Your task to perform on an android device: Show the shopping cart on walmart.com. Add razer naga to the cart on walmart.com, then select checkout. Image 0: 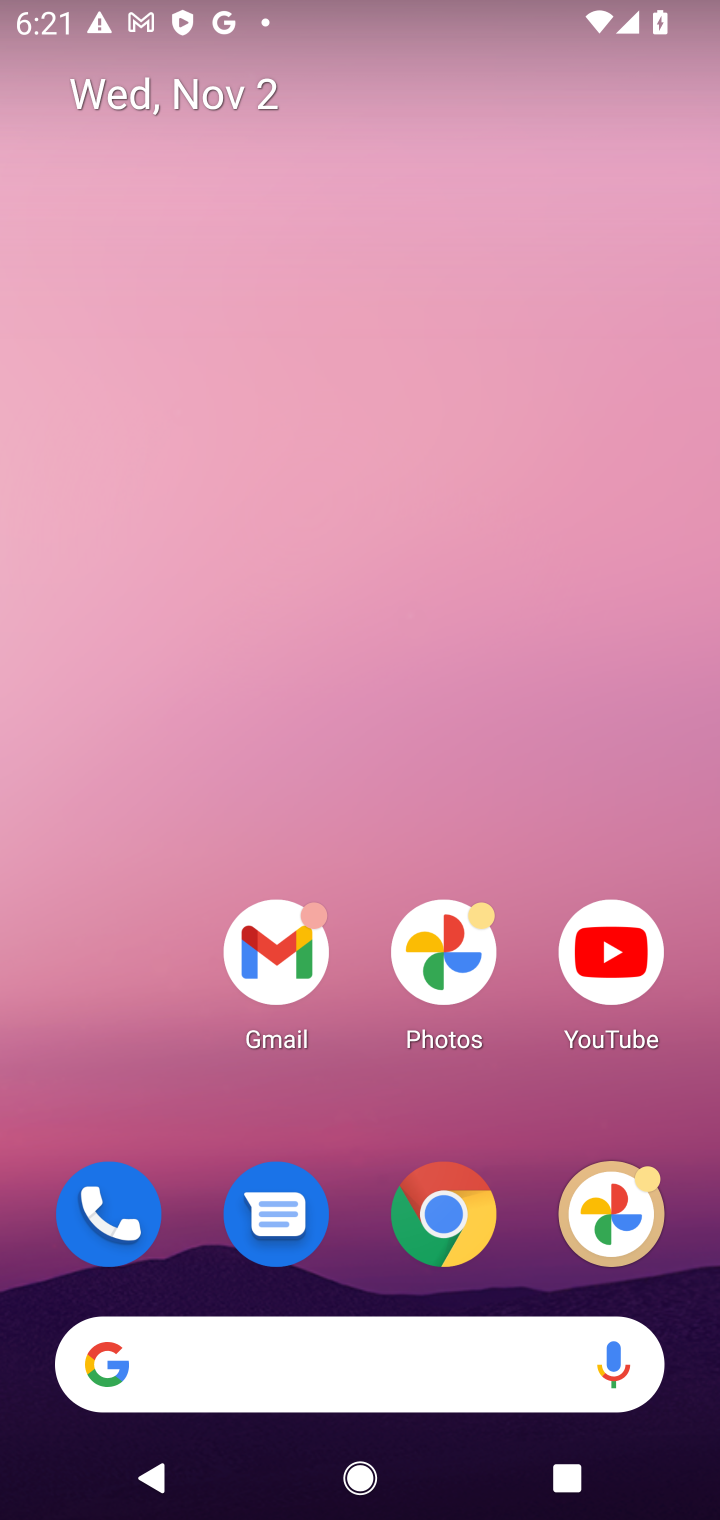
Step 0: click (450, 1218)
Your task to perform on an android device: Show the shopping cart on walmart.com. Add razer naga to the cart on walmart.com, then select checkout. Image 1: 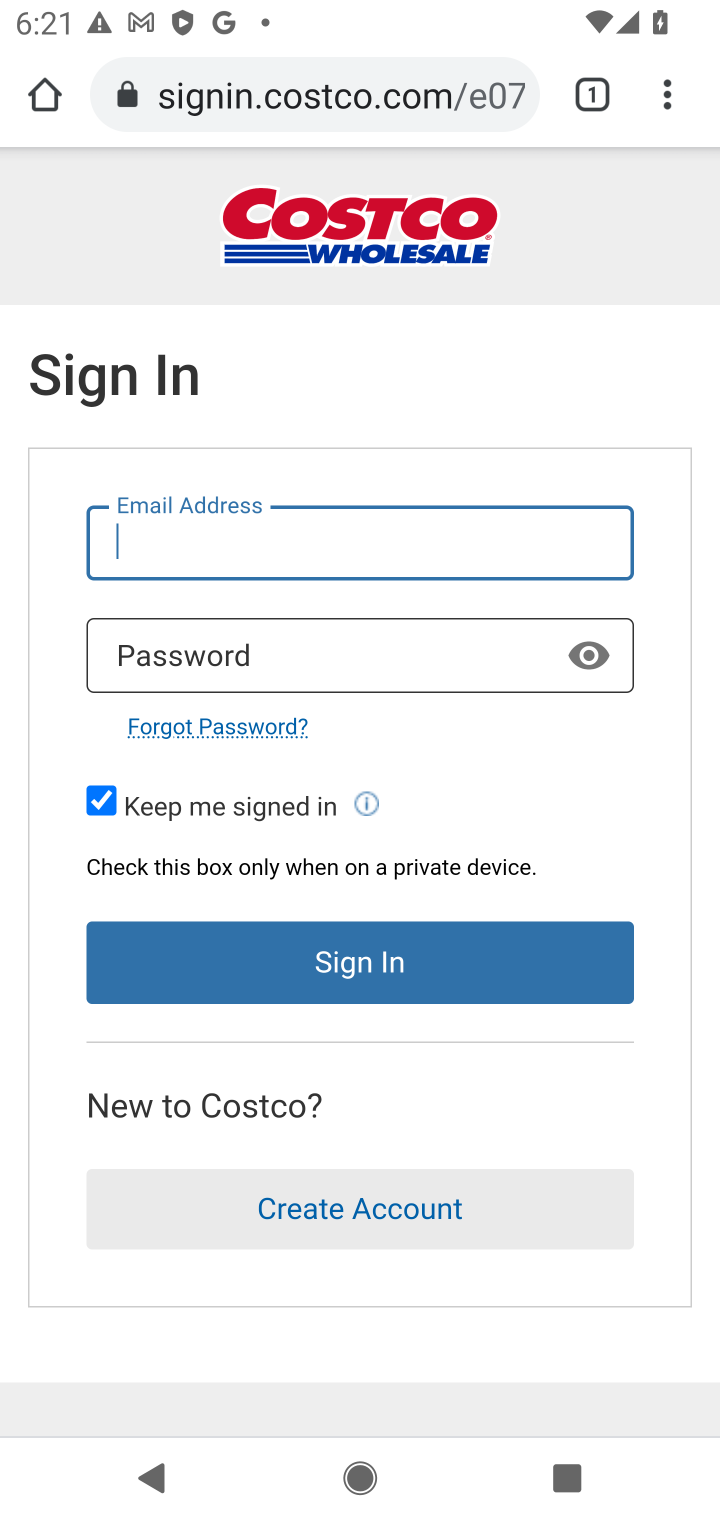
Step 1: click (301, 94)
Your task to perform on an android device: Show the shopping cart on walmart.com. Add razer naga to the cart on walmart.com, then select checkout. Image 2: 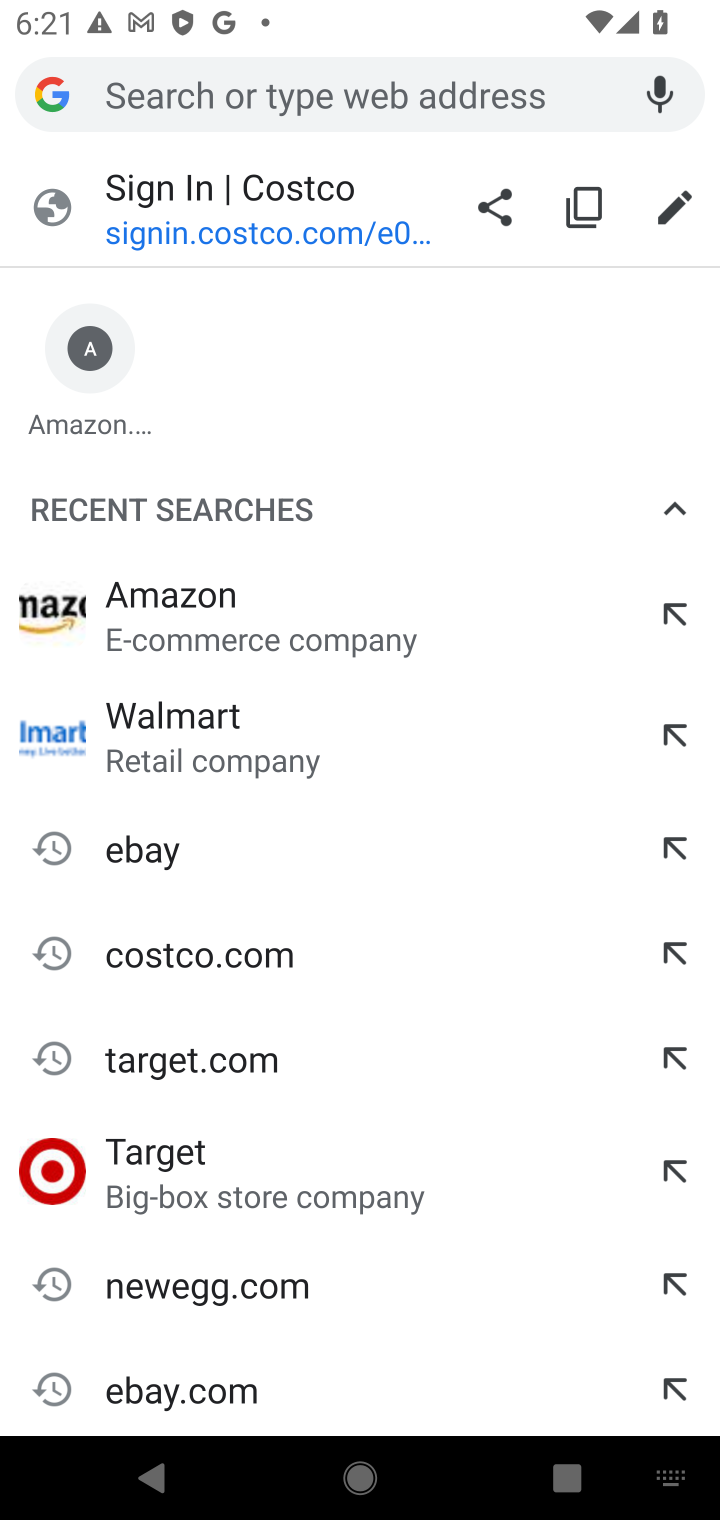
Step 2: type "walmart.com"
Your task to perform on an android device: Show the shopping cart on walmart.com. Add razer naga to the cart on walmart.com, then select checkout. Image 3: 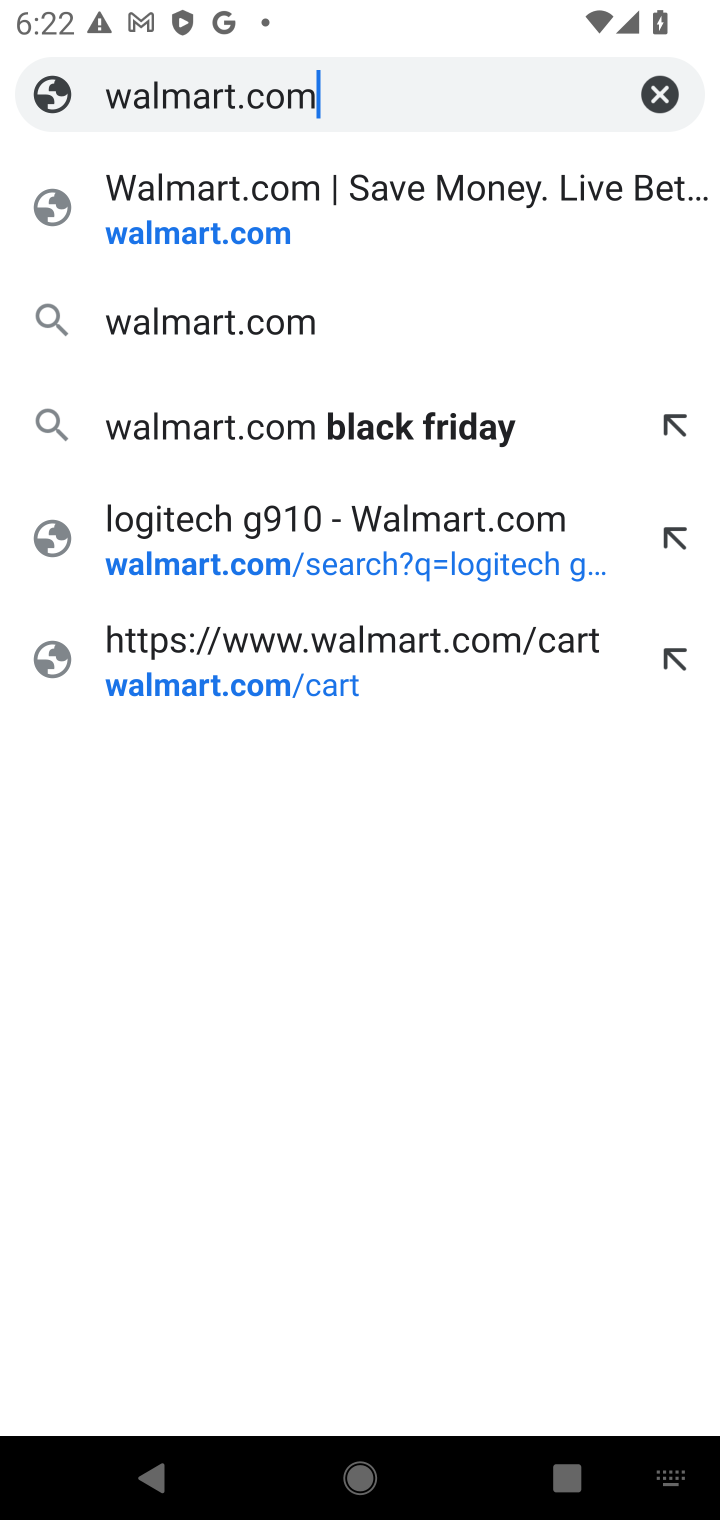
Step 3: click (266, 337)
Your task to perform on an android device: Show the shopping cart on walmart.com. Add razer naga to the cart on walmart.com, then select checkout. Image 4: 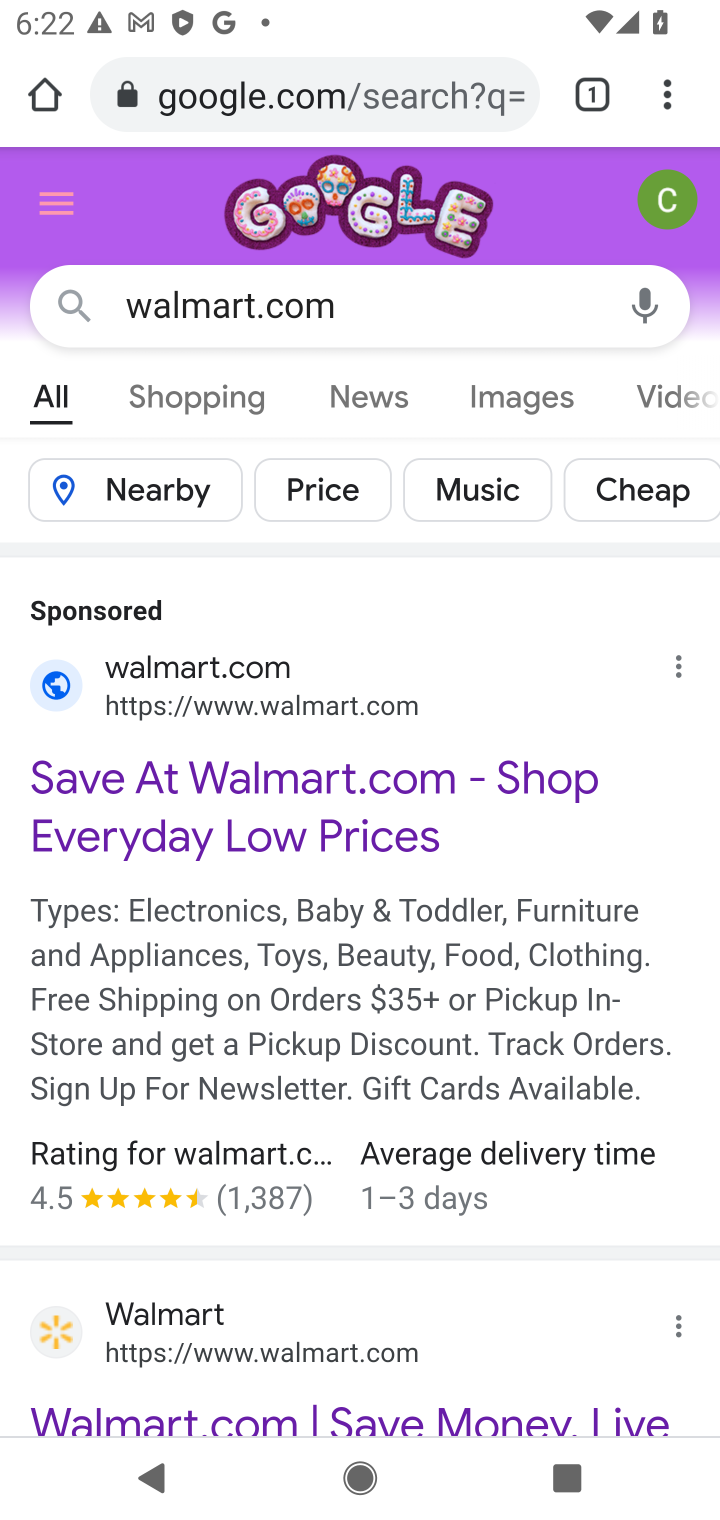
Step 4: drag from (385, 1304) to (436, 621)
Your task to perform on an android device: Show the shopping cart on walmart.com. Add razer naga to the cart on walmart.com, then select checkout. Image 5: 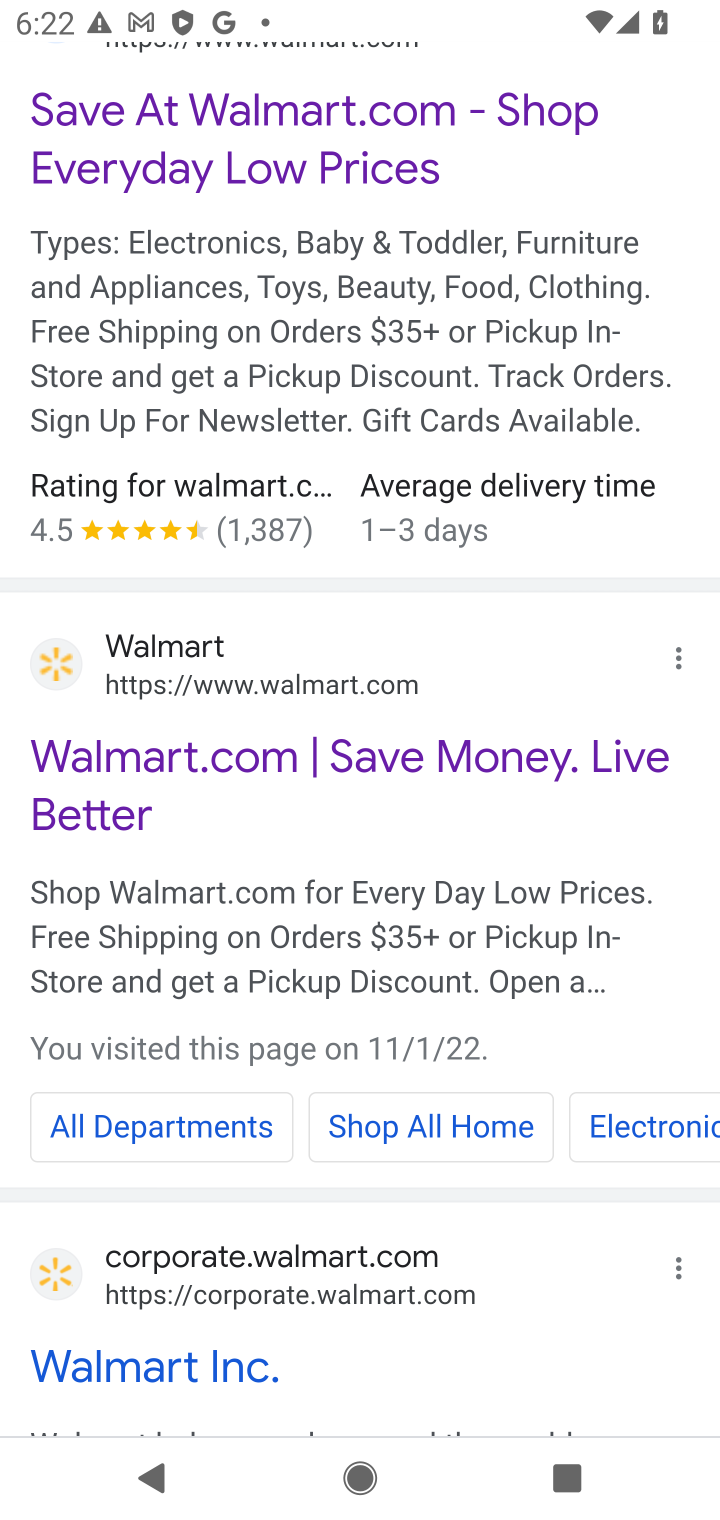
Step 5: click (309, 710)
Your task to perform on an android device: Show the shopping cart on walmart.com. Add razer naga to the cart on walmart.com, then select checkout. Image 6: 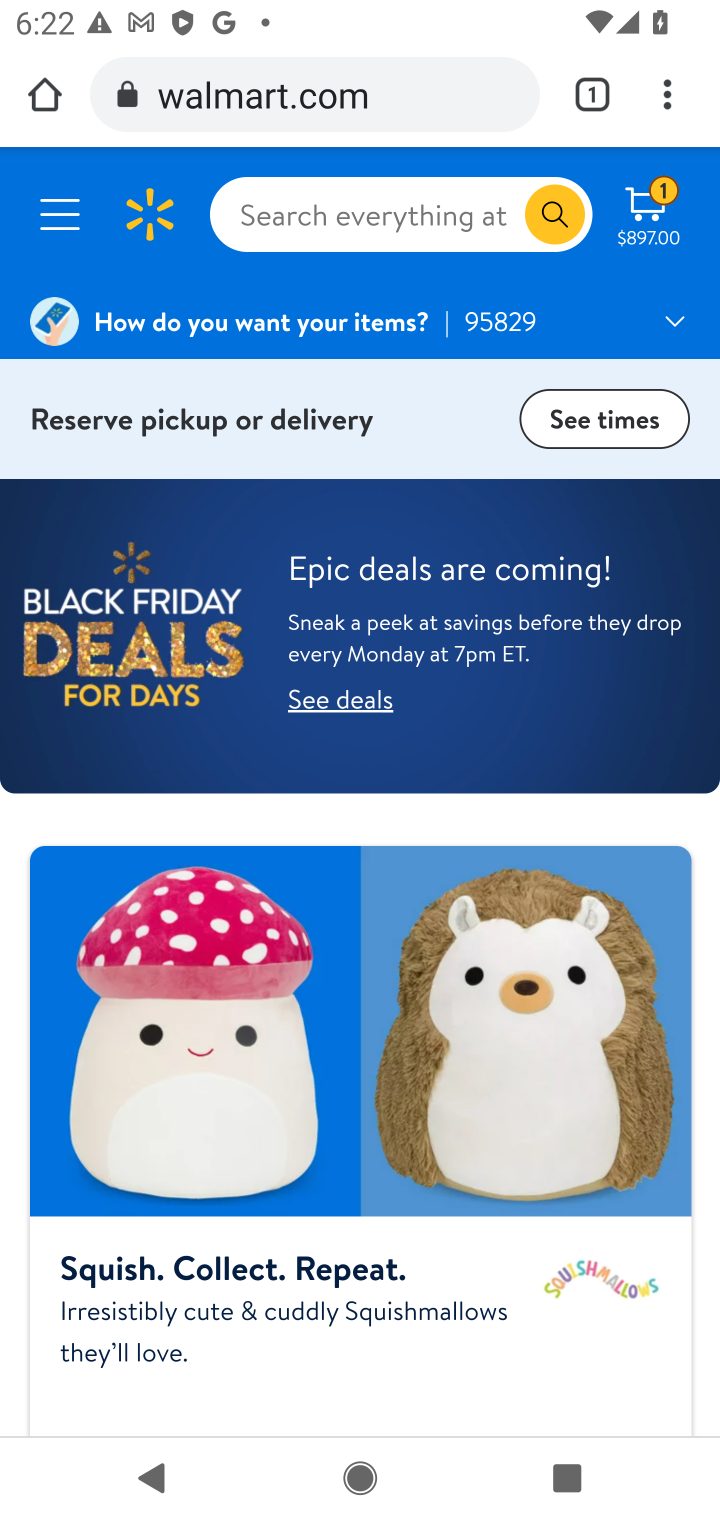
Step 6: click (650, 212)
Your task to perform on an android device: Show the shopping cart on walmart.com. Add razer naga to the cart on walmart.com, then select checkout. Image 7: 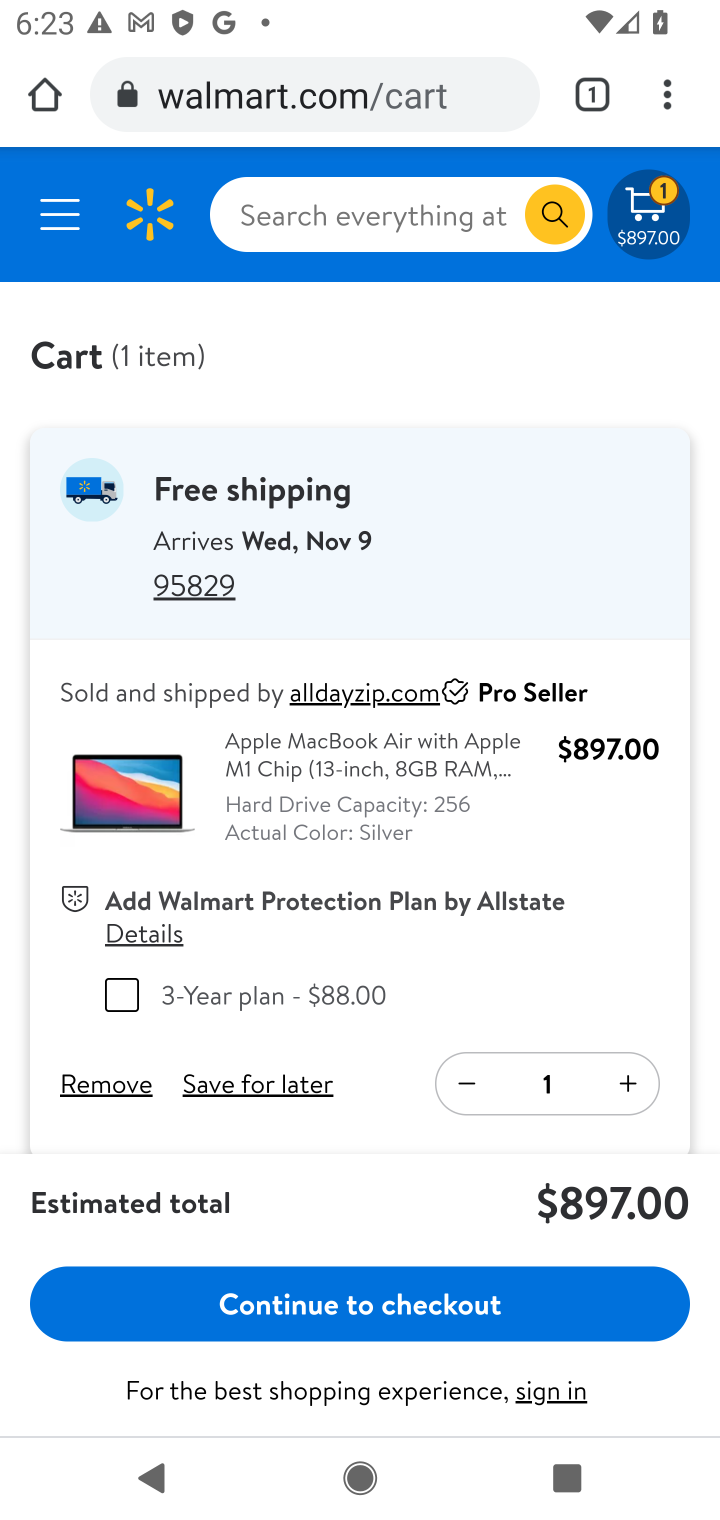
Step 7: click (341, 207)
Your task to perform on an android device: Show the shopping cart on walmart.com. Add razer naga to the cart on walmart.com, then select checkout. Image 8: 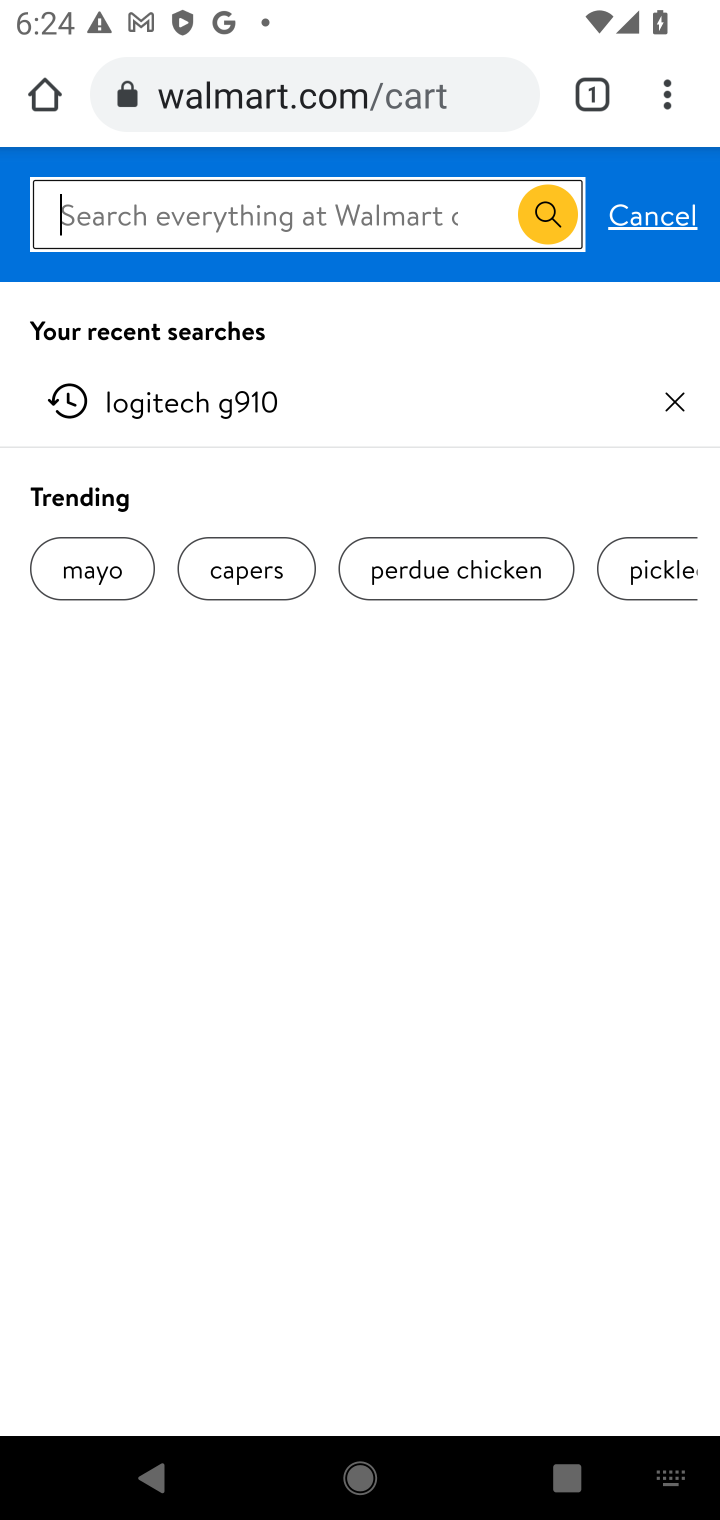
Step 8: type "razer naga"
Your task to perform on an android device: Show the shopping cart on walmart.com. Add razer naga to the cart on walmart.com, then select checkout. Image 9: 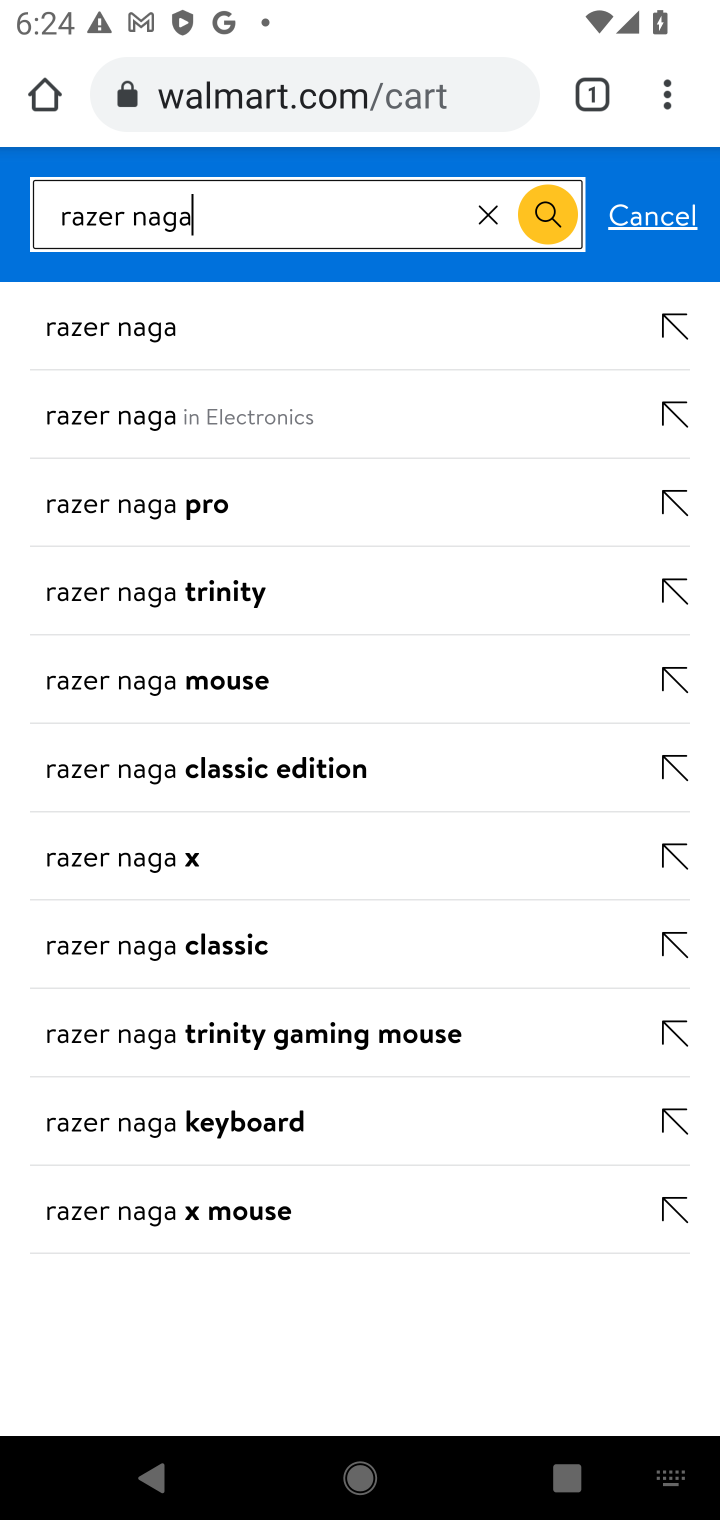
Step 9: click (96, 326)
Your task to perform on an android device: Show the shopping cart on walmart.com. Add razer naga to the cart on walmart.com, then select checkout. Image 10: 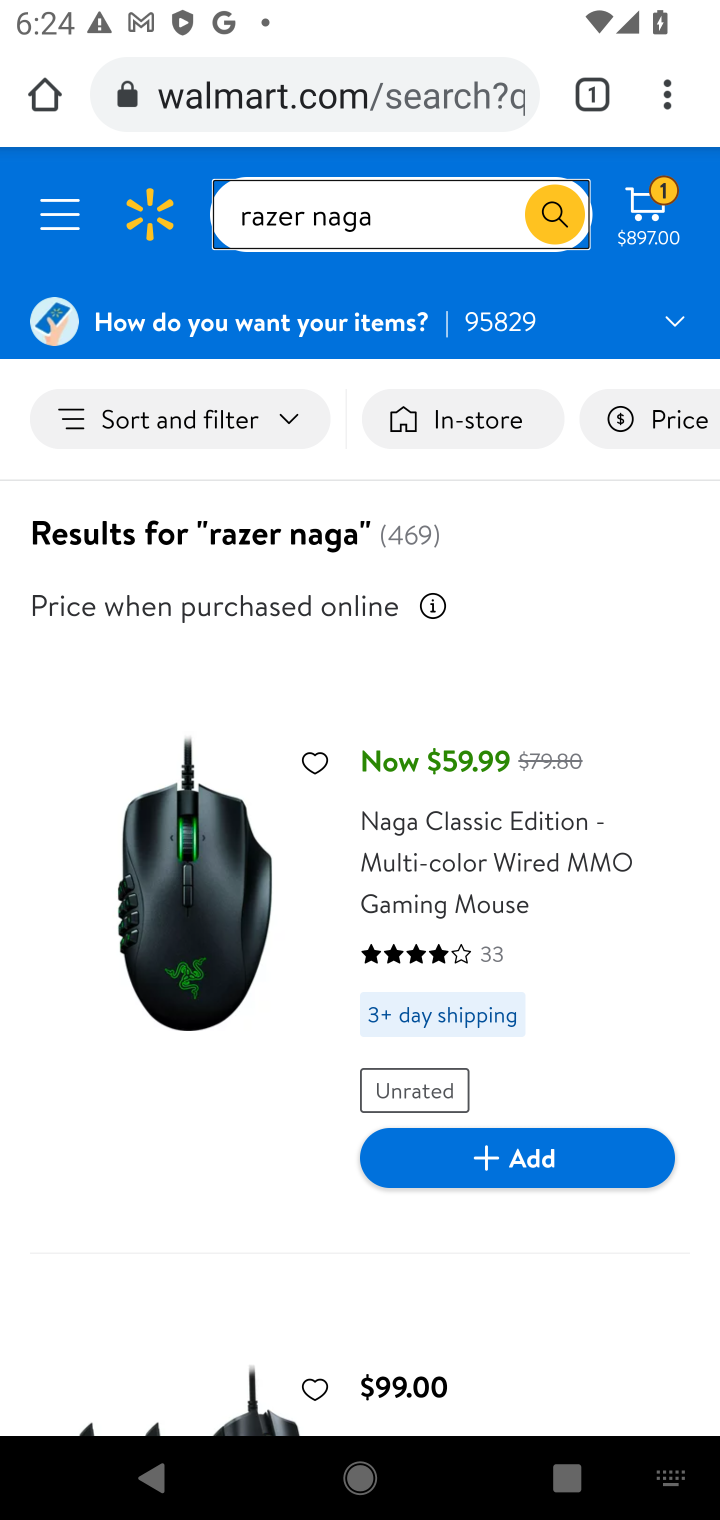
Step 10: click (533, 1160)
Your task to perform on an android device: Show the shopping cart on walmart.com. Add razer naga to the cart on walmart.com, then select checkout. Image 11: 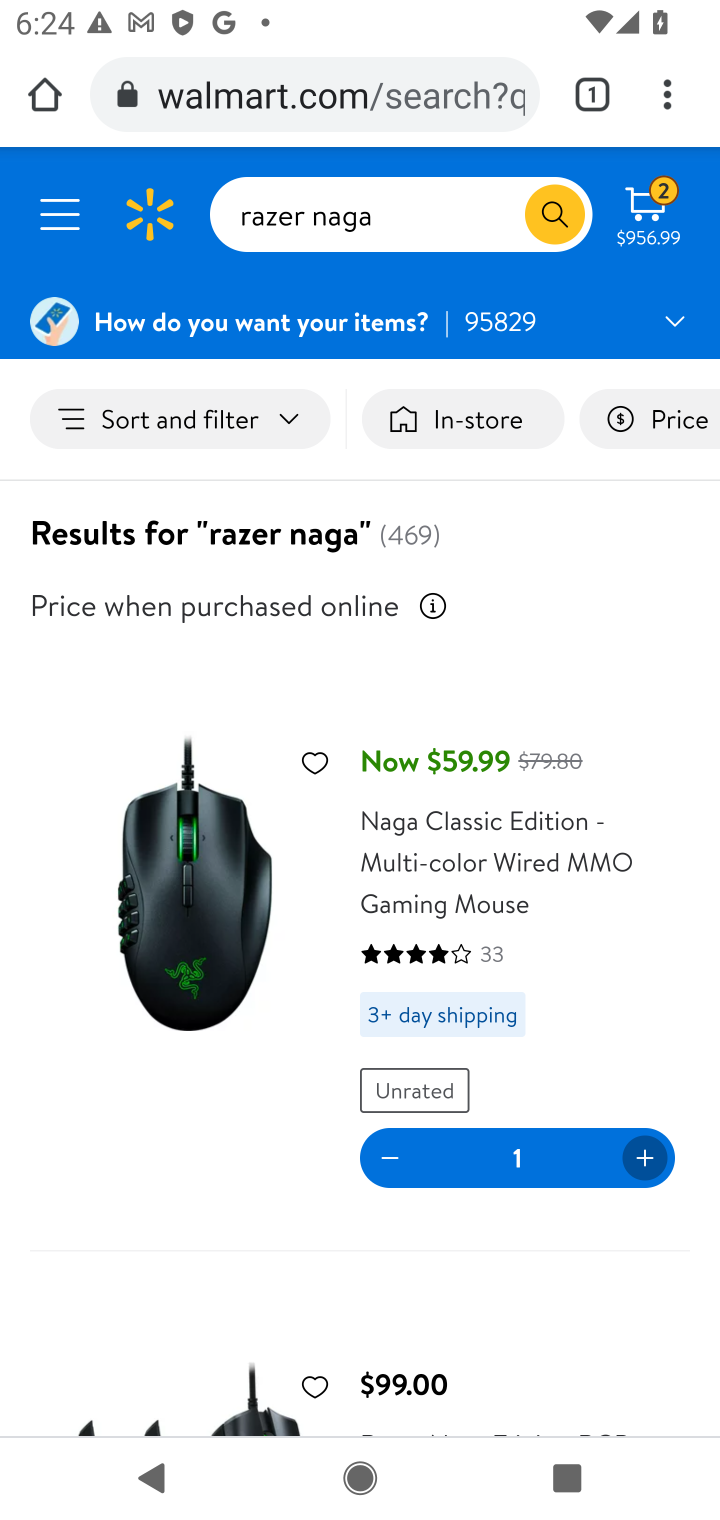
Step 11: click (657, 206)
Your task to perform on an android device: Show the shopping cart on walmart.com. Add razer naga to the cart on walmart.com, then select checkout. Image 12: 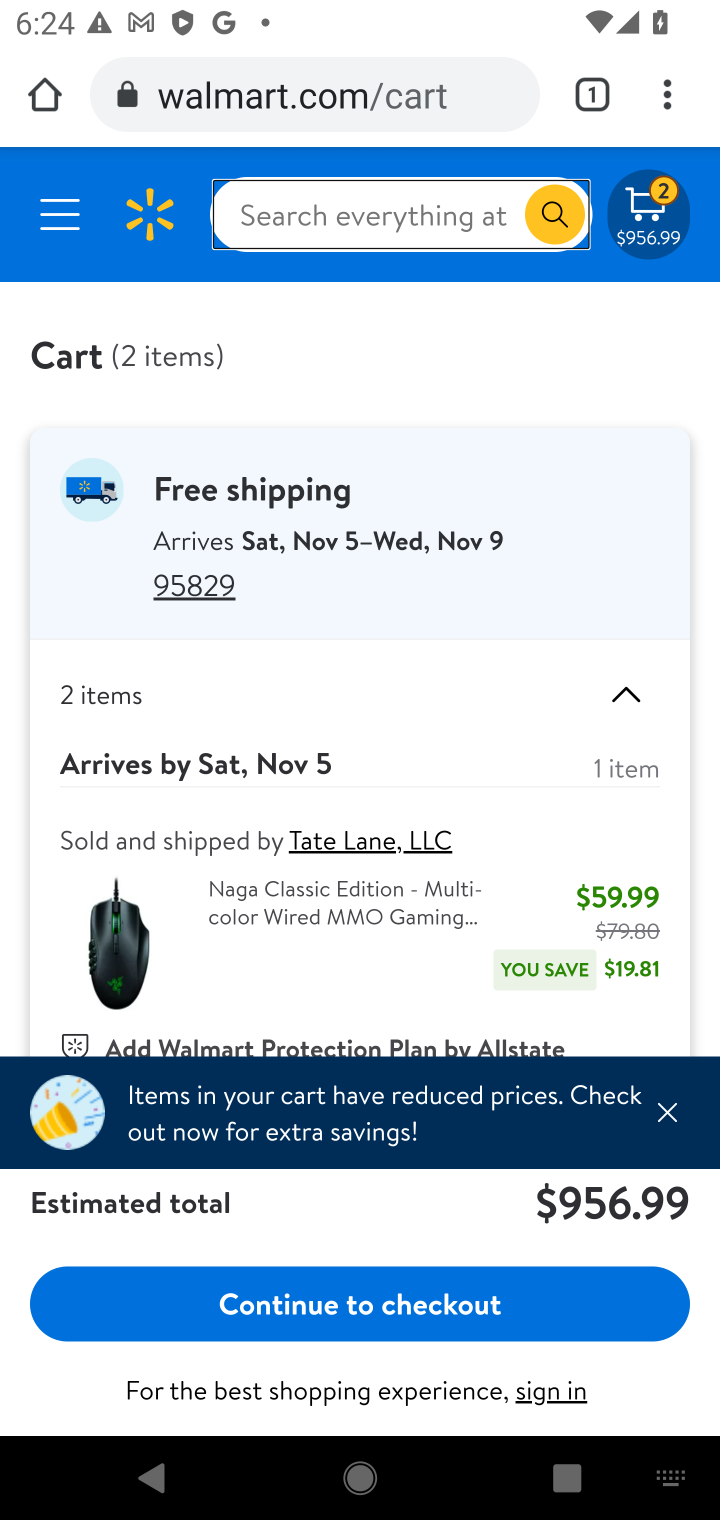
Step 12: click (333, 1305)
Your task to perform on an android device: Show the shopping cart on walmart.com. Add razer naga to the cart on walmart.com, then select checkout. Image 13: 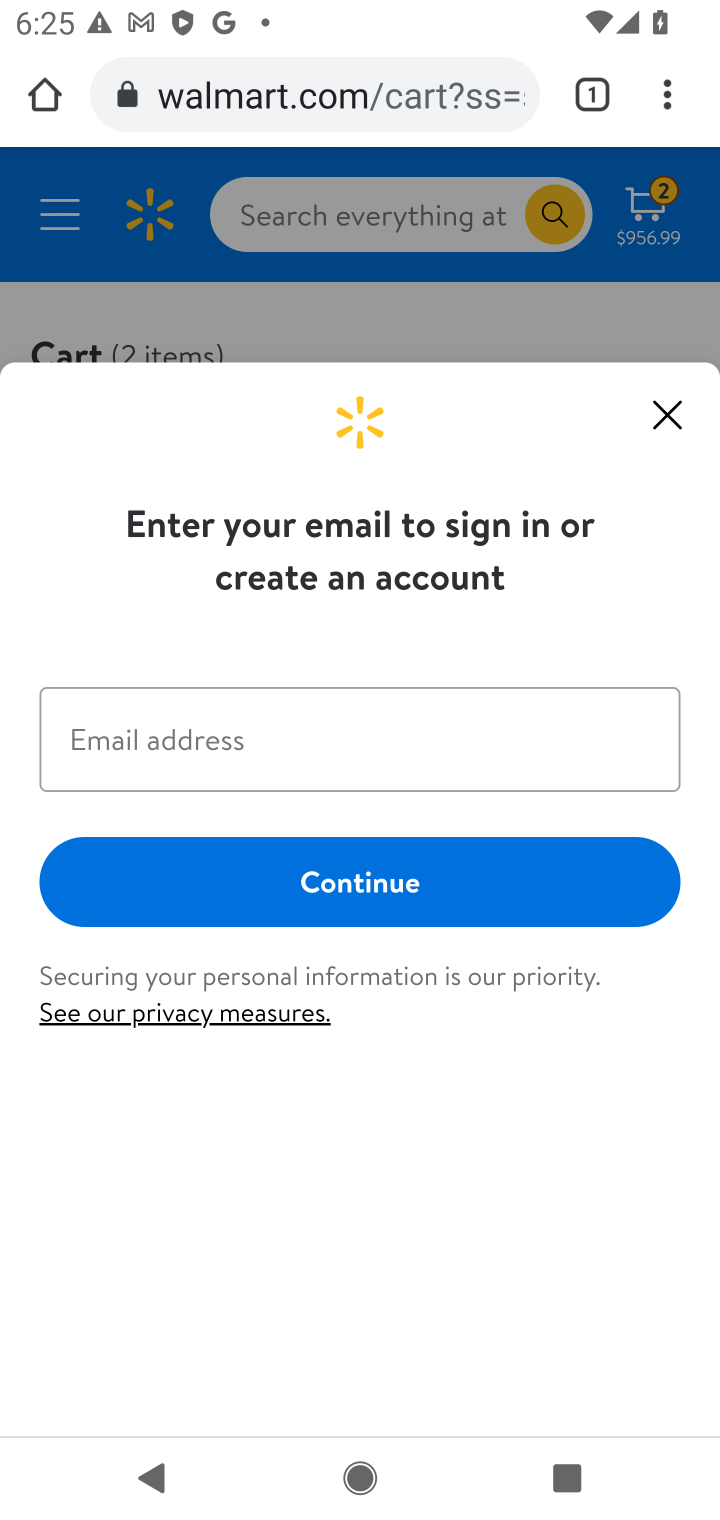
Step 13: task complete